Your task to perform on an android device: change keyboard looks Image 0: 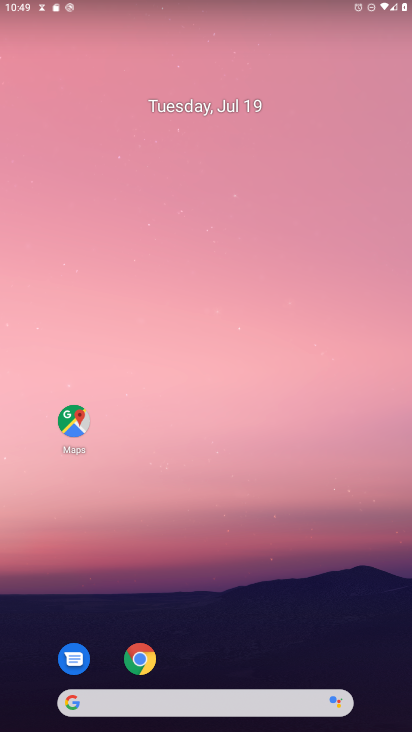
Step 0: drag from (193, 355) to (185, 272)
Your task to perform on an android device: change keyboard looks Image 1: 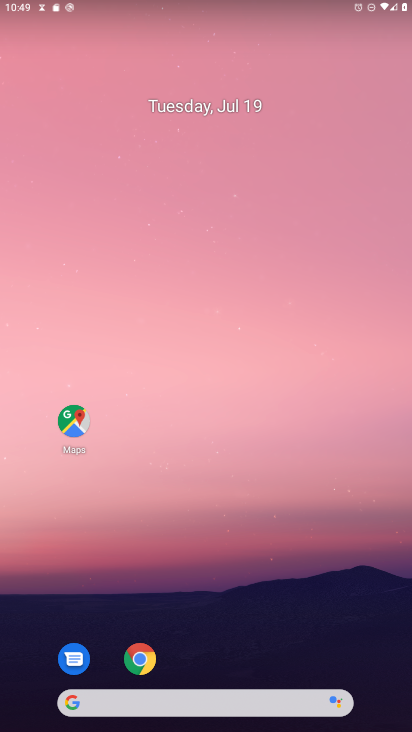
Step 1: drag from (218, 676) to (213, 192)
Your task to perform on an android device: change keyboard looks Image 2: 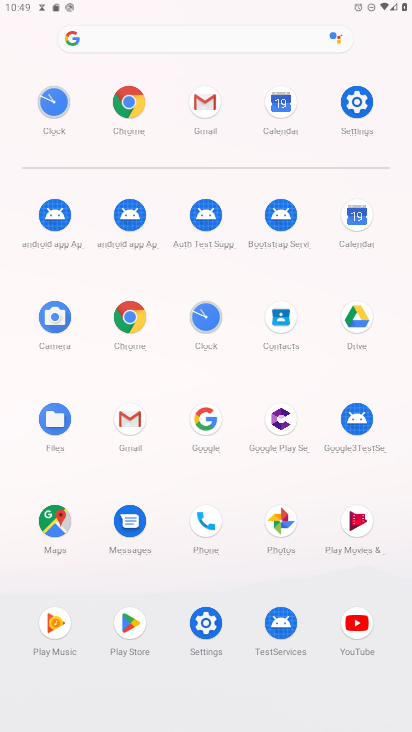
Step 2: click (345, 103)
Your task to perform on an android device: change keyboard looks Image 3: 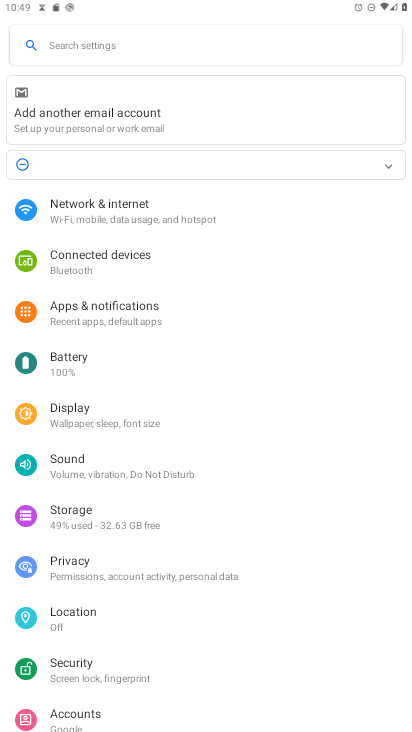
Step 3: drag from (124, 570) to (133, 251)
Your task to perform on an android device: change keyboard looks Image 4: 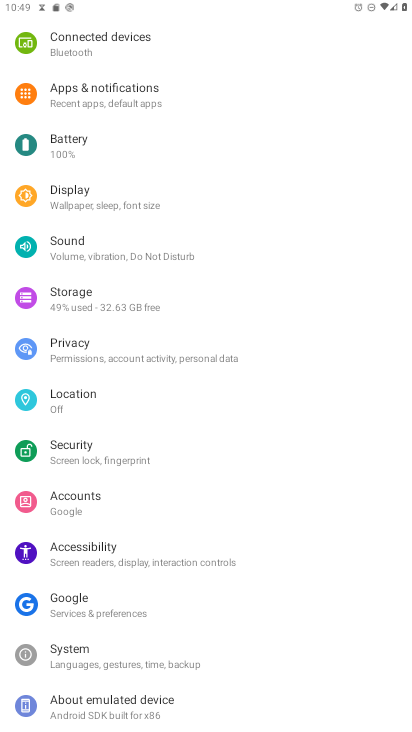
Step 4: drag from (104, 622) to (102, 428)
Your task to perform on an android device: change keyboard looks Image 5: 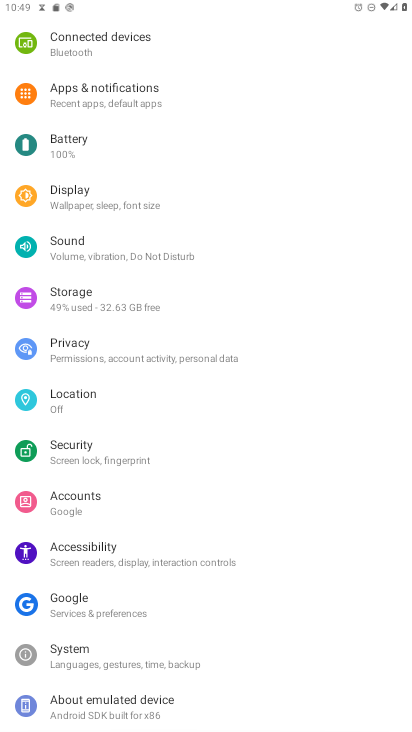
Step 5: click (105, 672)
Your task to perform on an android device: change keyboard looks Image 6: 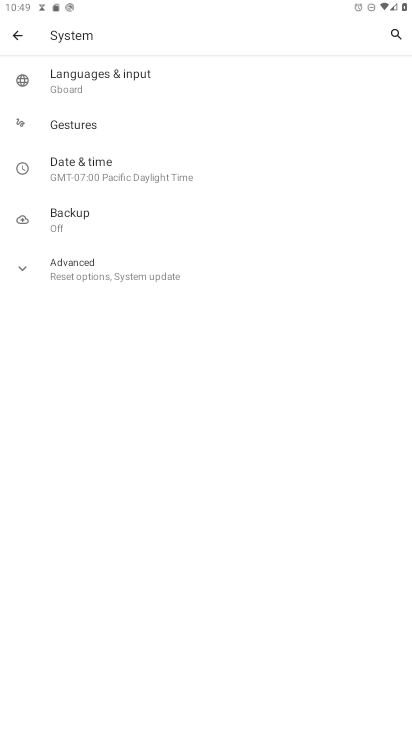
Step 6: click (65, 95)
Your task to perform on an android device: change keyboard looks Image 7: 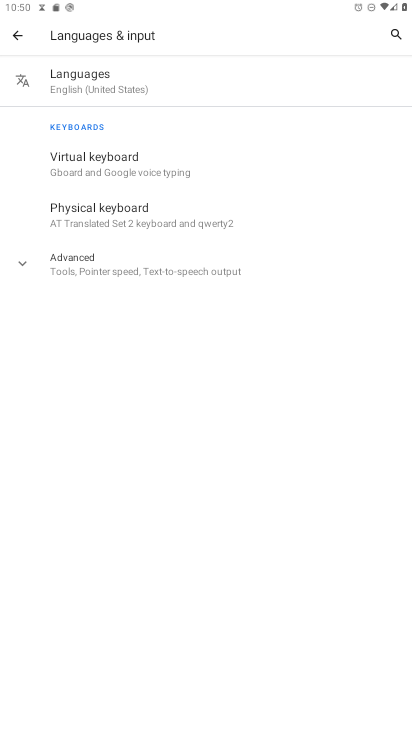
Step 7: click (116, 168)
Your task to perform on an android device: change keyboard looks Image 8: 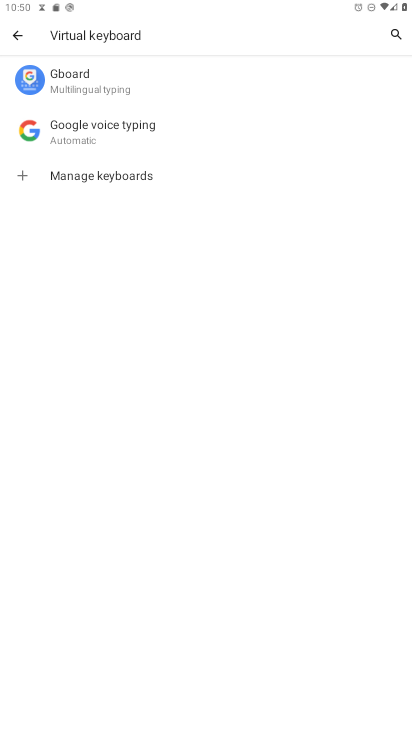
Step 8: click (97, 62)
Your task to perform on an android device: change keyboard looks Image 9: 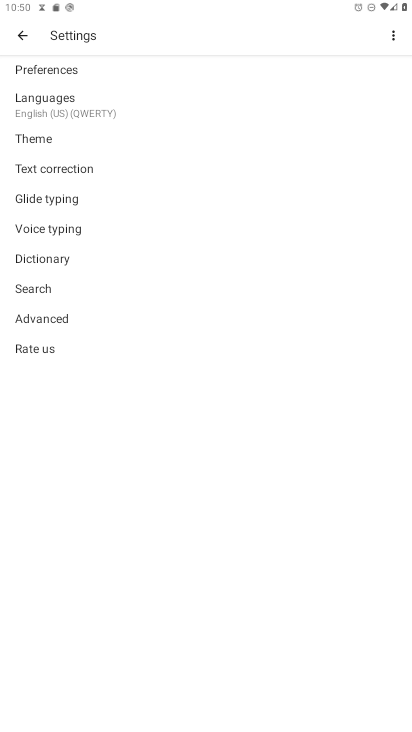
Step 9: click (56, 100)
Your task to perform on an android device: change keyboard looks Image 10: 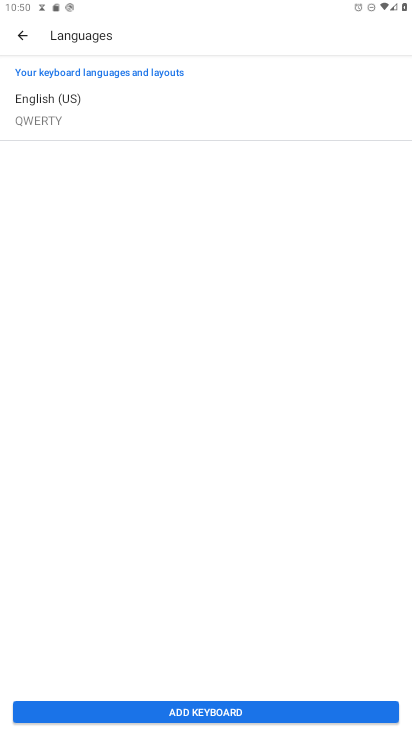
Step 10: click (30, 33)
Your task to perform on an android device: change keyboard looks Image 11: 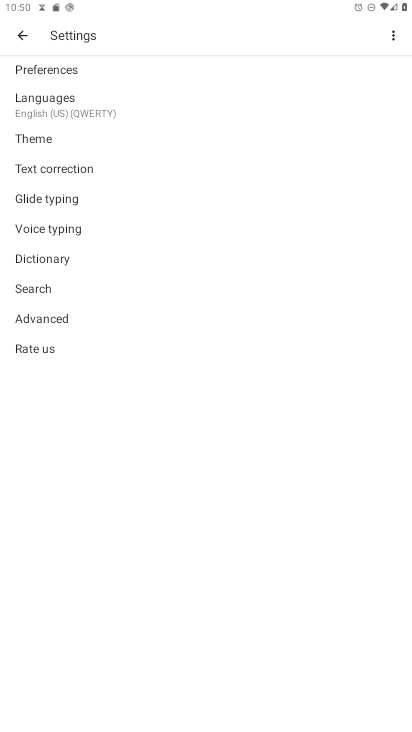
Step 11: click (47, 145)
Your task to perform on an android device: change keyboard looks Image 12: 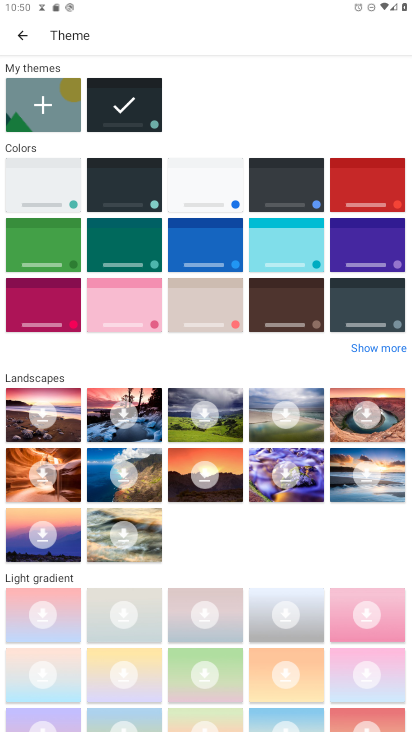
Step 12: click (269, 659)
Your task to perform on an android device: change keyboard looks Image 13: 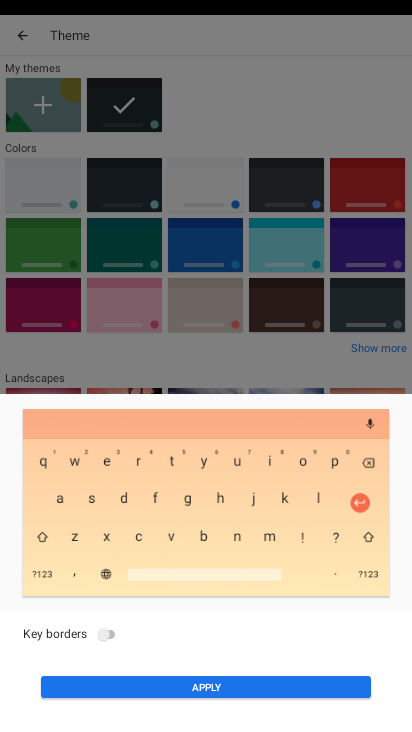
Step 13: click (247, 681)
Your task to perform on an android device: change keyboard looks Image 14: 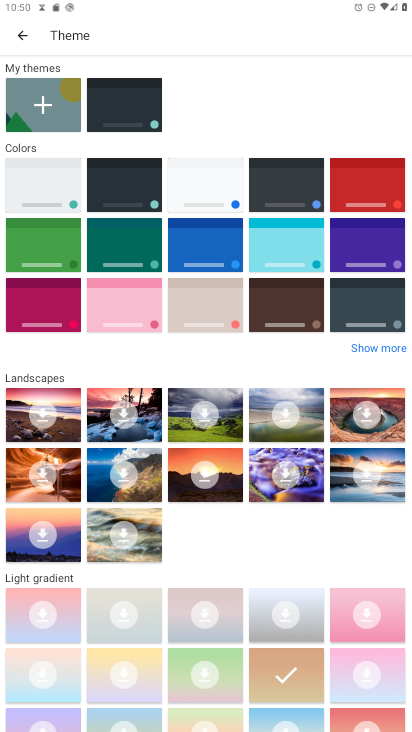
Step 14: task complete